Your task to perform on an android device: What's the news in Uruguay? Image 0: 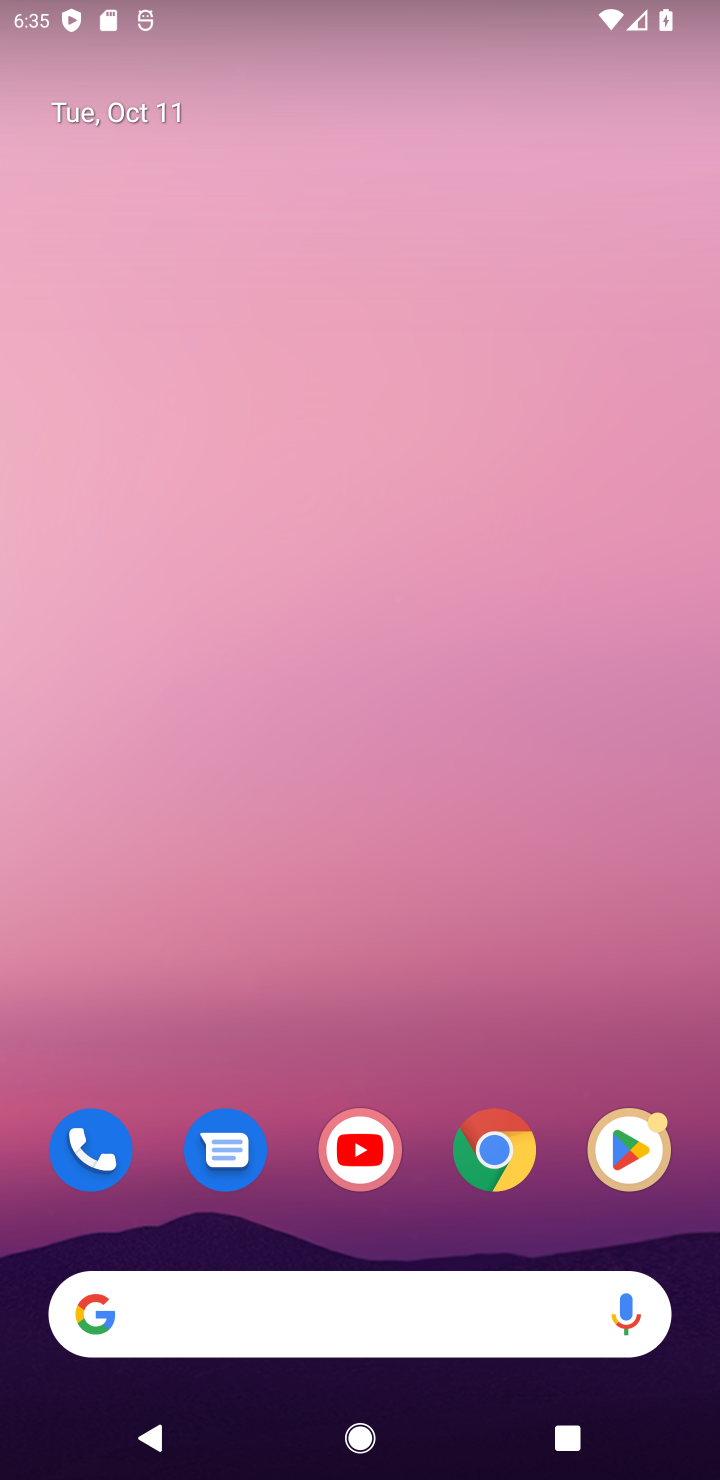
Step 0: click (489, 1154)
Your task to perform on an android device: What's the news in Uruguay? Image 1: 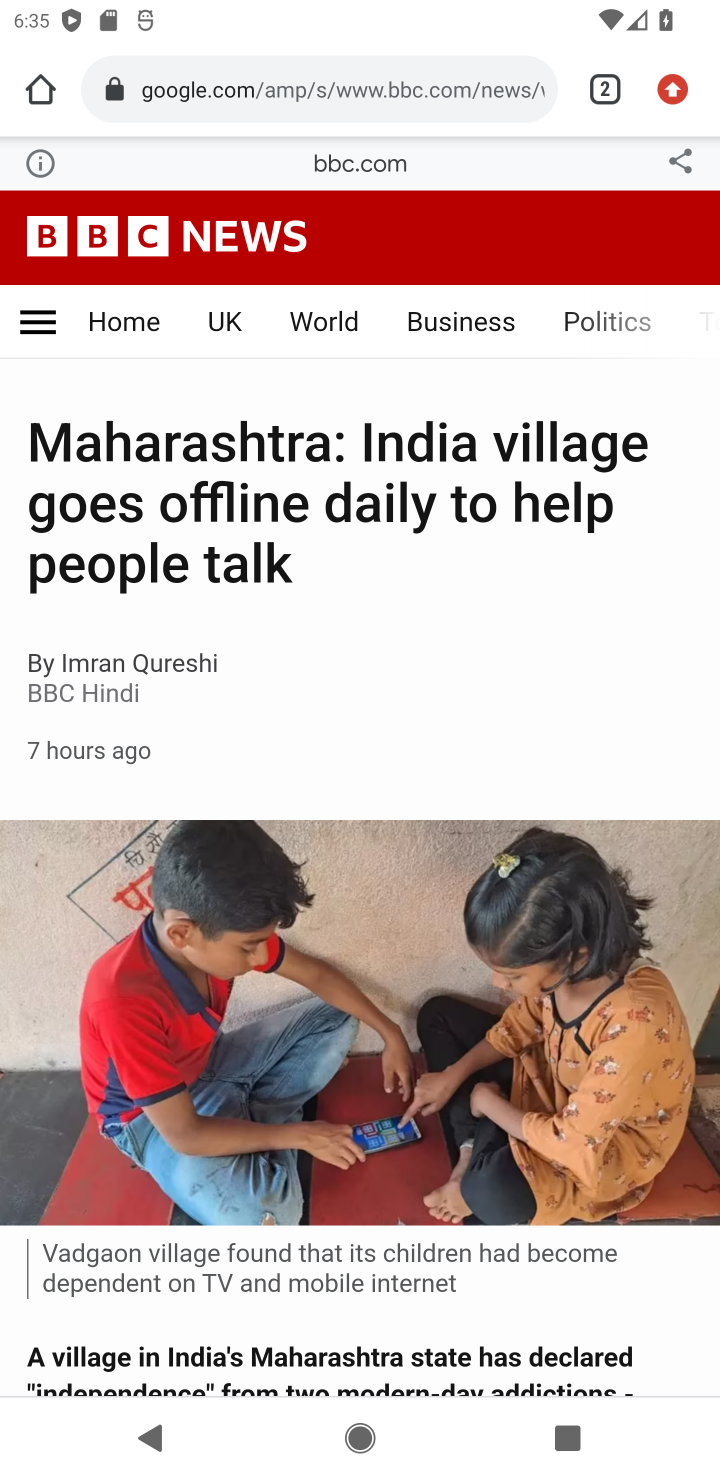
Step 1: click (315, 79)
Your task to perform on an android device: What's the news in Uruguay? Image 2: 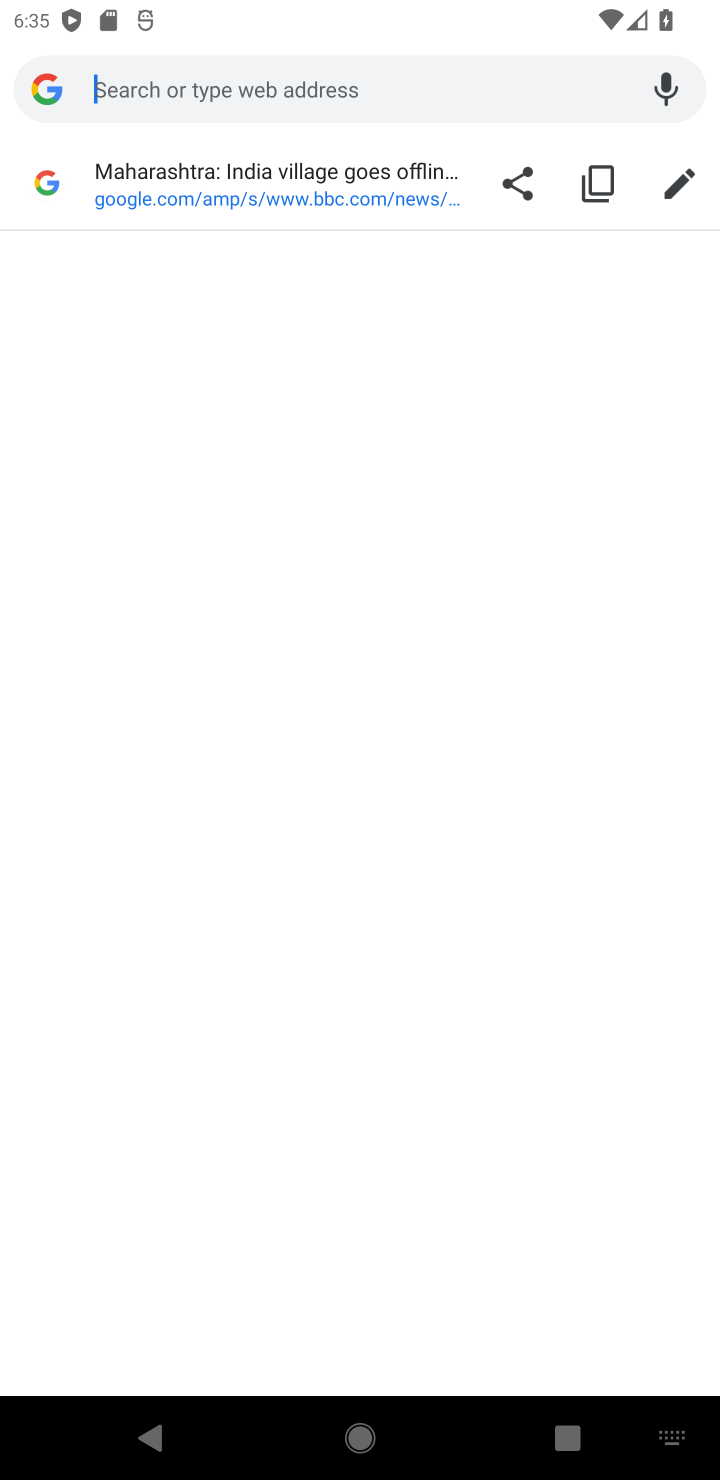
Step 2: type "Uruguay news"
Your task to perform on an android device: What's the news in Uruguay? Image 3: 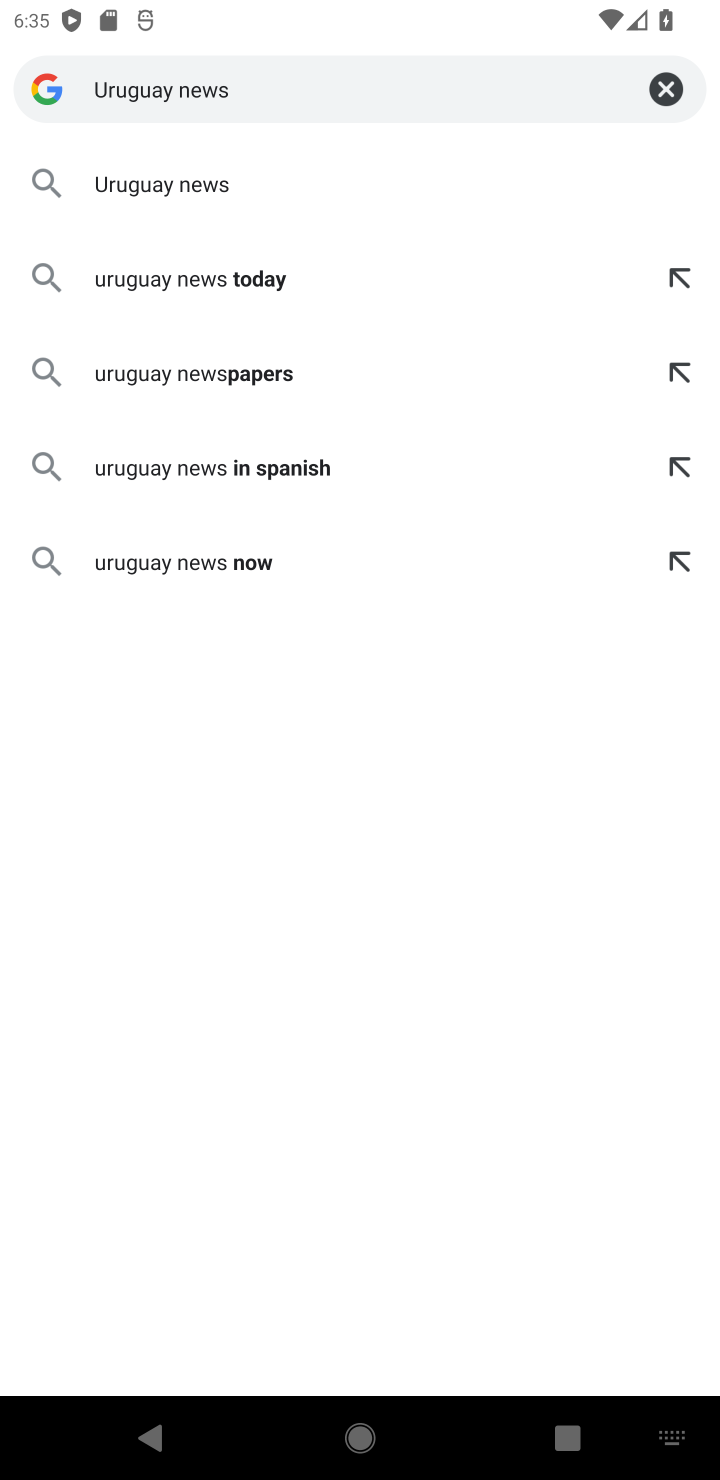
Step 3: click (171, 194)
Your task to perform on an android device: What's the news in Uruguay? Image 4: 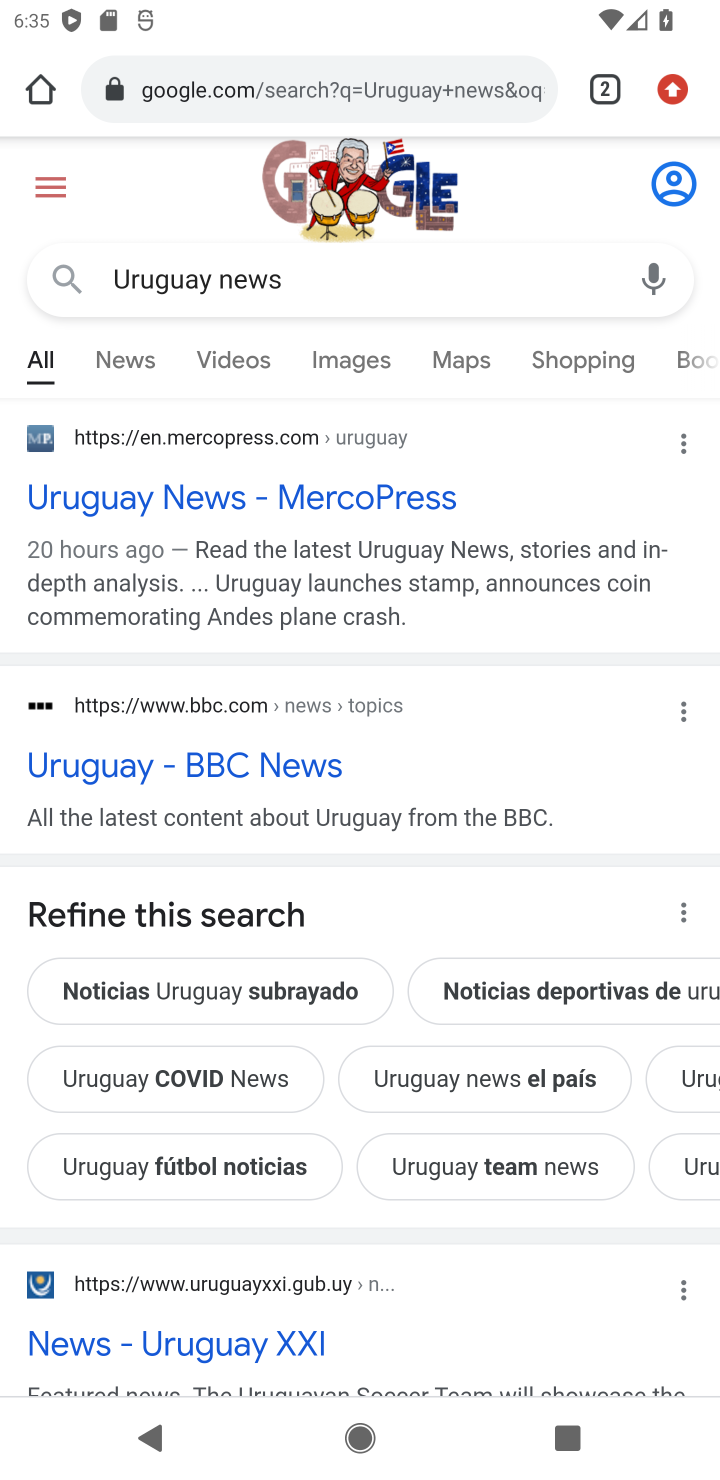
Step 4: click (128, 370)
Your task to perform on an android device: What's the news in Uruguay? Image 5: 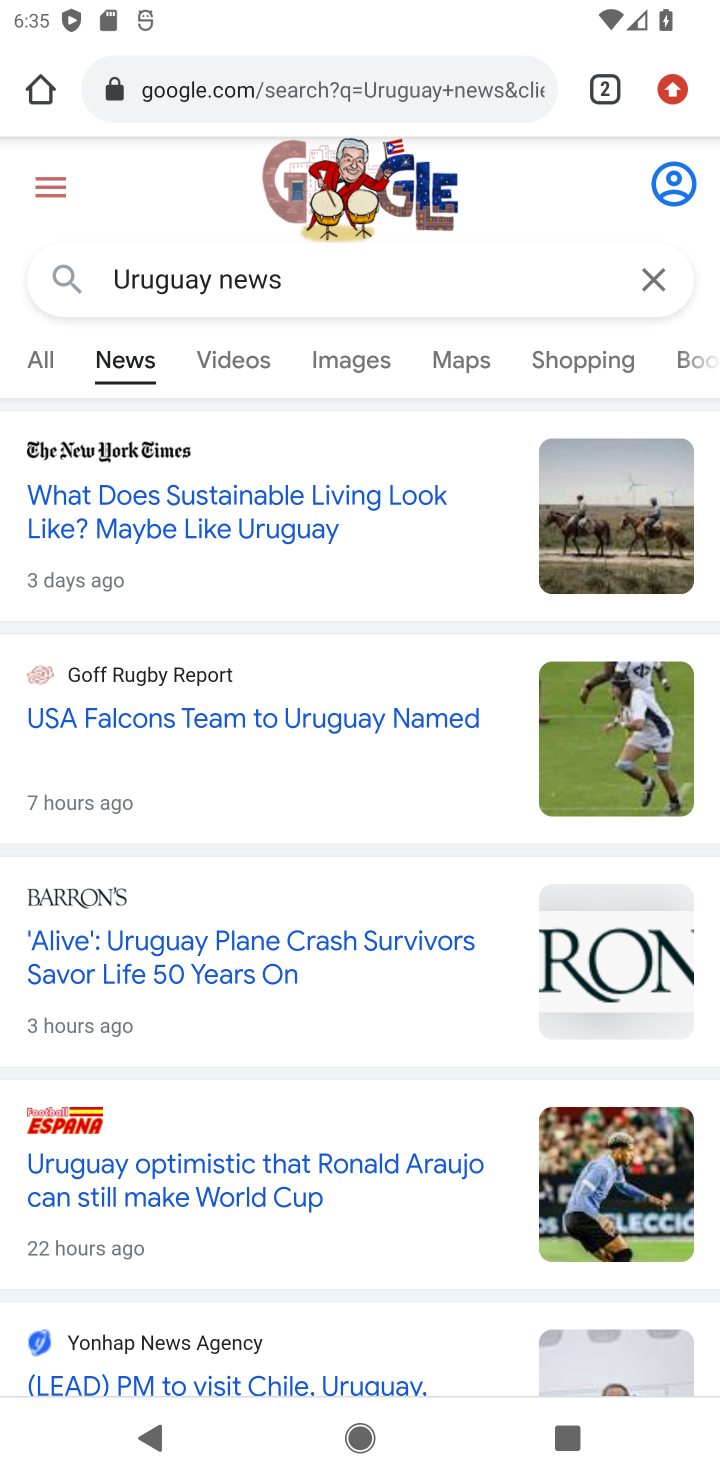
Step 5: click (165, 716)
Your task to perform on an android device: What's the news in Uruguay? Image 6: 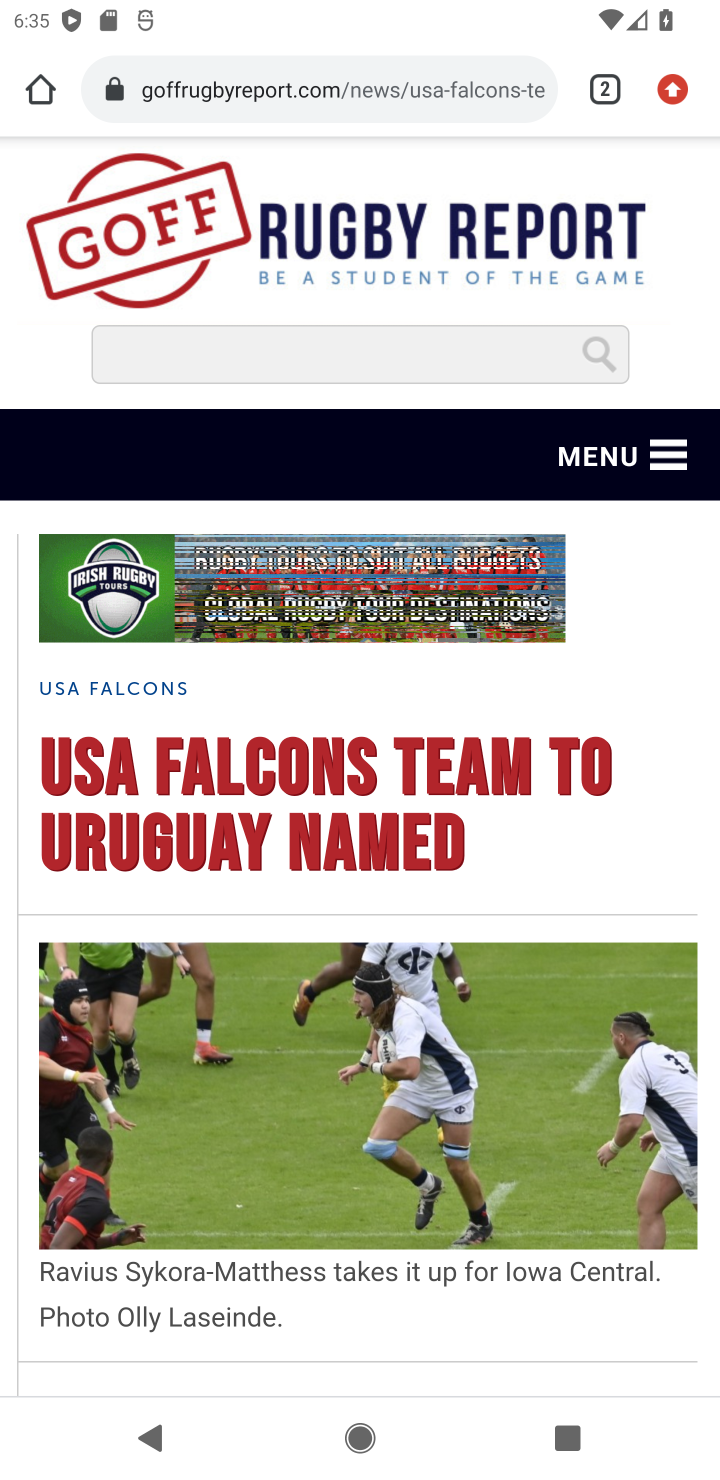
Step 6: task complete